Your task to perform on an android device: set an alarm Image 0: 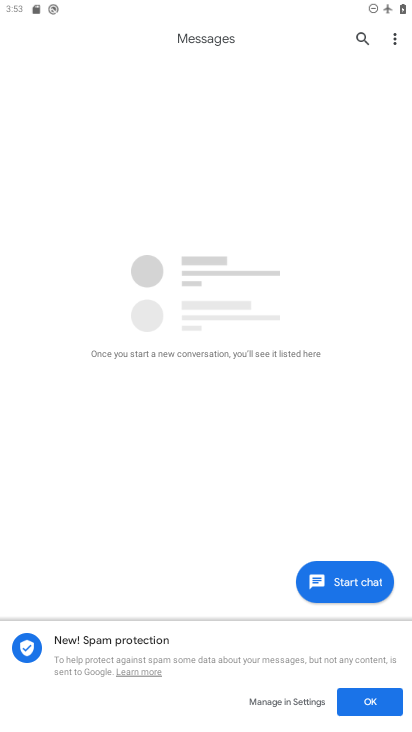
Step 0: drag from (304, 634) to (234, 90)
Your task to perform on an android device: set an alarm Image 1: 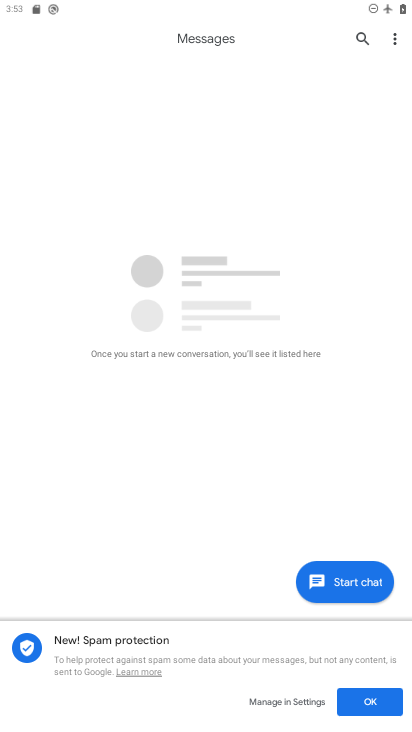
Step 1: press home button
Your task to perform on an android device: set an alarm Image 2: 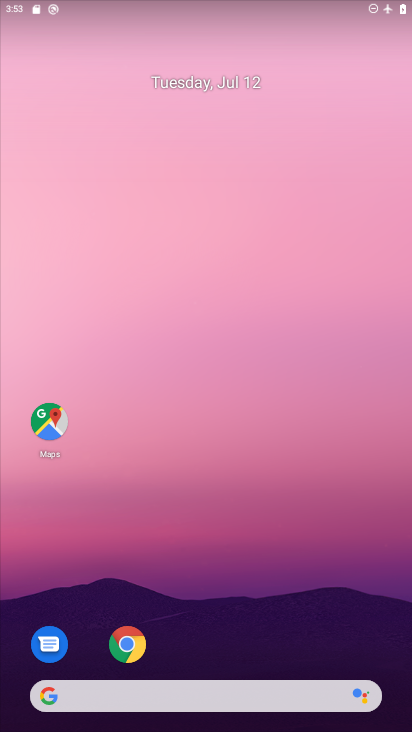
Step 2: drag from (340, 527) to (313, 28)
Your task to perform on an android device: set an alarm Image 3: 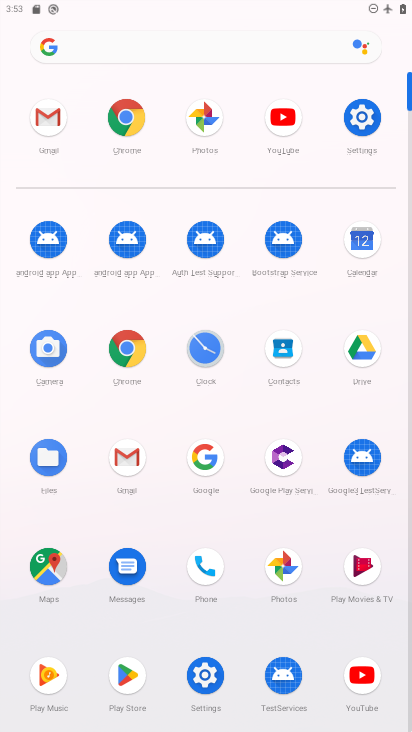
Step 3: click (218, 351)
Your task to perform on an android device: set an alarm Image 4: 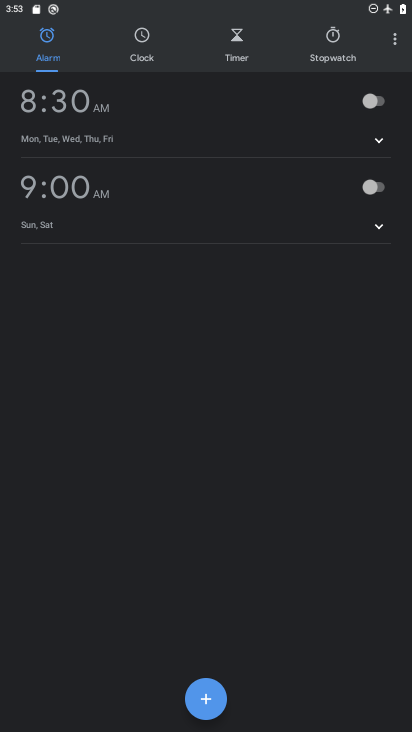
Step 4: click (210, 705)
Your task to perform on an android device: set an alarm Image 5: 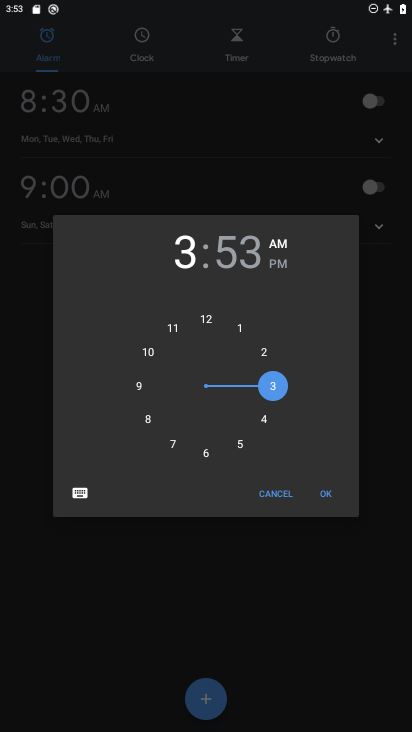
Step 5: click (336, 495)
Your task to perform on an android device: set an alarm Image 6: 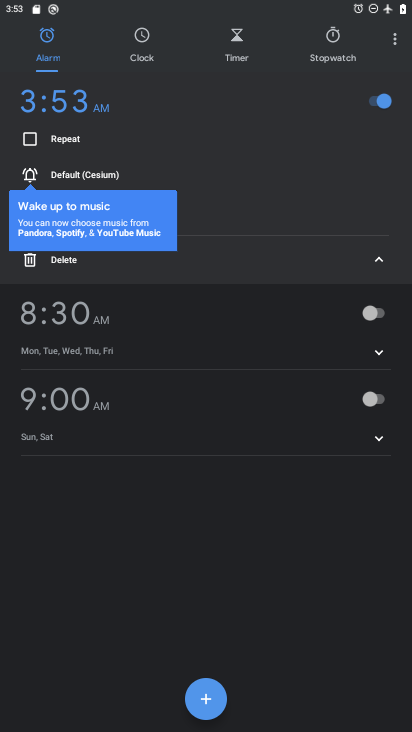
Step 6: task complete